Your task to perform on an android device: Go to Wikipedia Image 0: 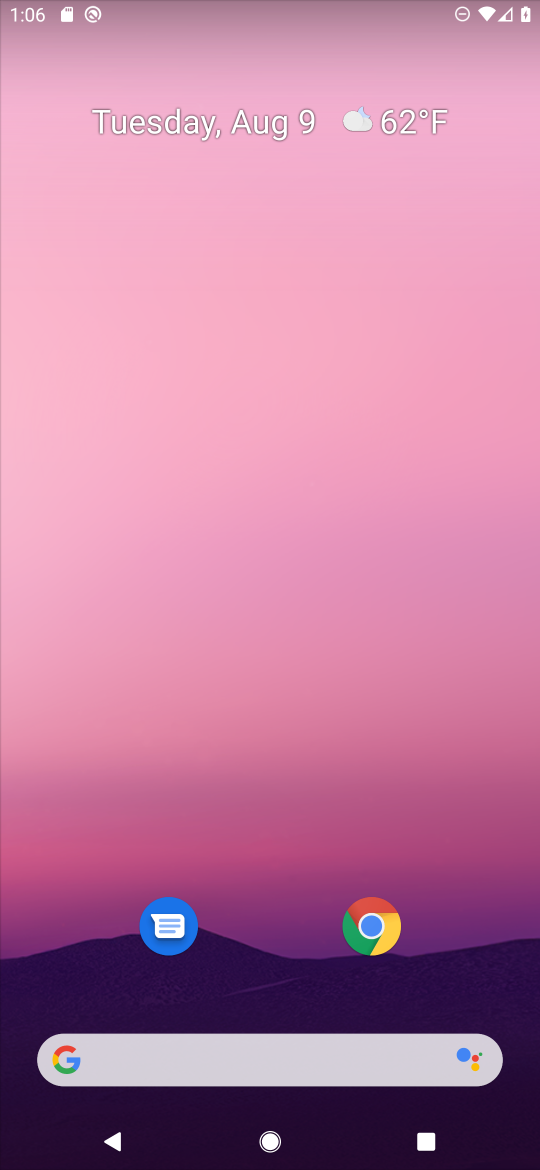
Step 0: drag from (32, 900) to (352, 242)
Your task to perform on an android device: Go to Wikipedia Image 1: 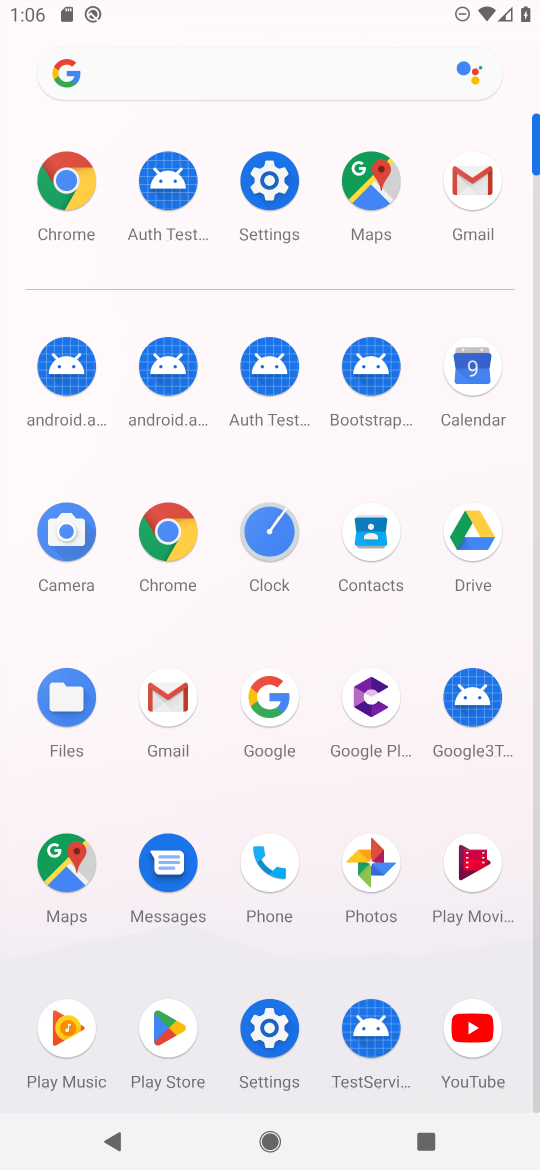
Step 1: click (43, 180)
Your task to perform on an android device: Go to Wikipedia Image 2: 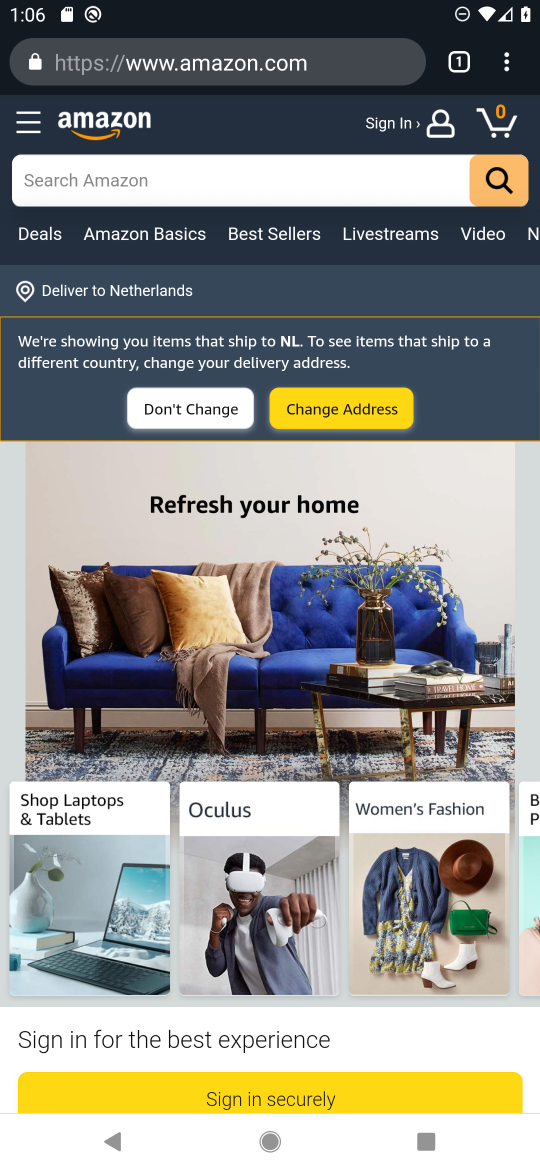
Step 2: click (468, 65)
Your task to perform on an android device: Go to Wikipedia Image 3: 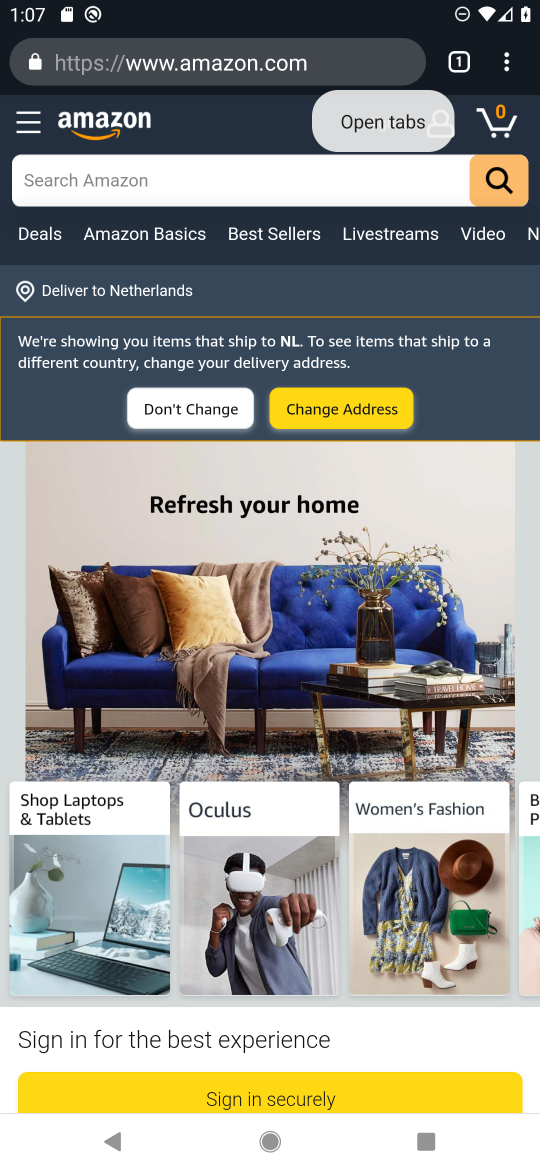
Step 3: click (457, 60)
Your task to perform on an android device: Go to Wikipedia Image 4: 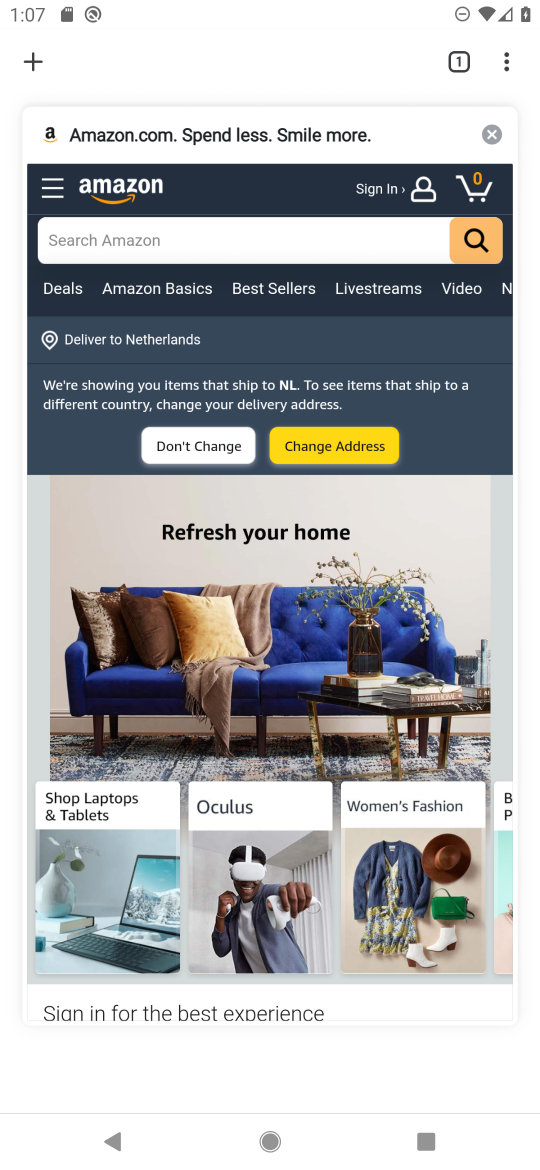
Step 4: click (493, 134)
Your task to perform on an android device: Go to Wikipedia Image 5: 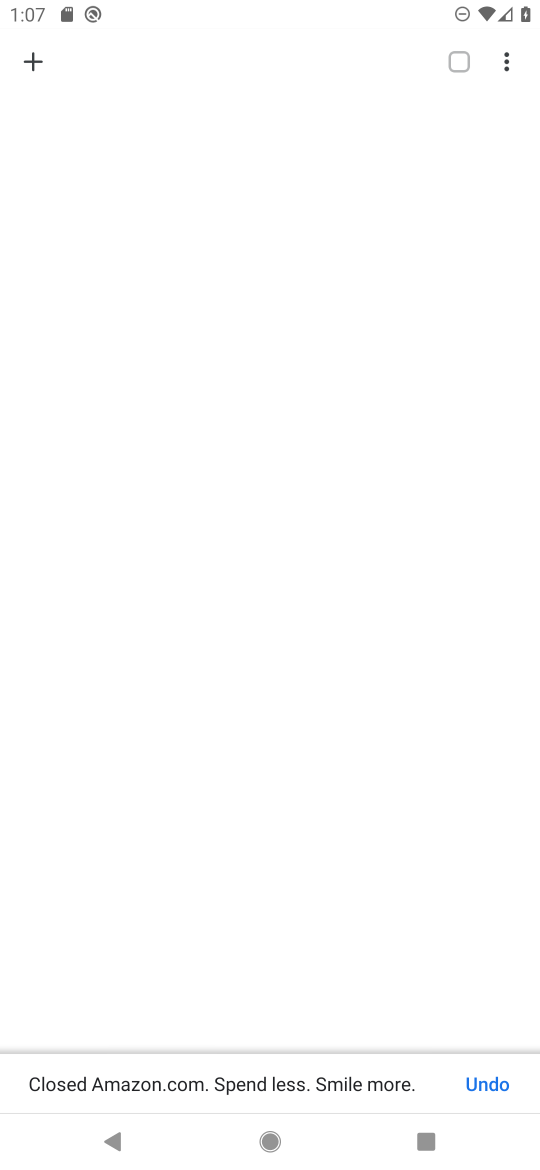
Step 5: click (36, 53)
Your task to perform on an android device: Go to Wikipedia Image 6: 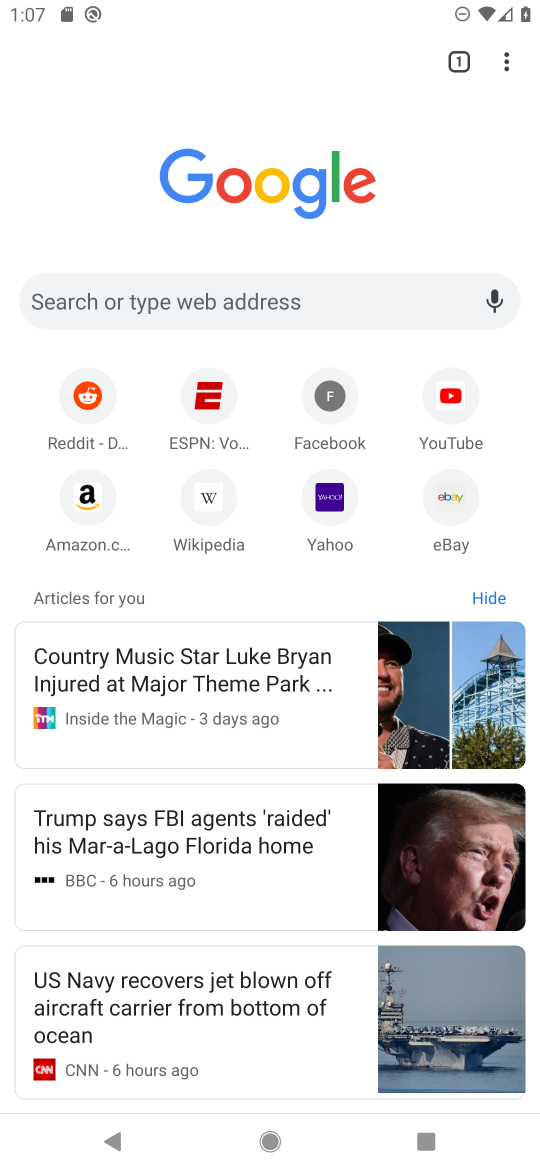
Step 6: click (213, 508)
Your task to perform on an android device: Go to Wikipedia Image 7: 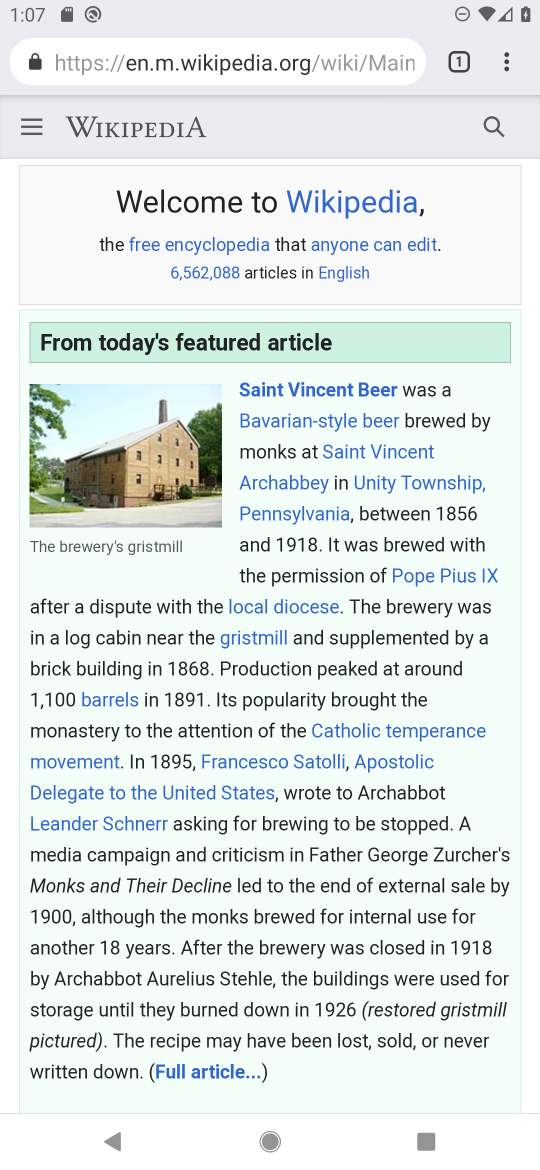
Step 7: task complete